Your task to perform on an android device: turn notification dots off Image 0: 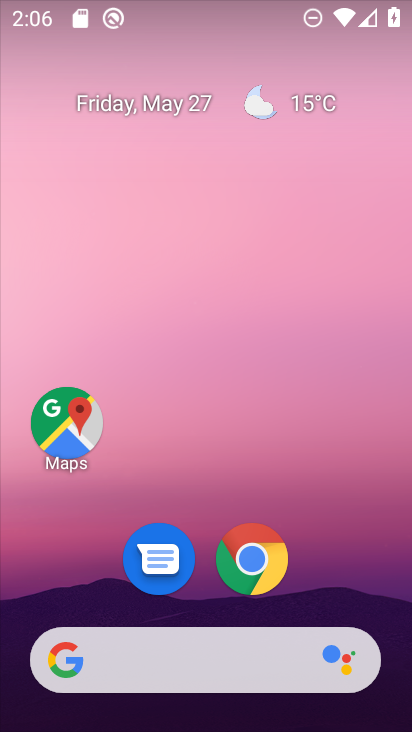
Step 0: click (268, 59)
Your task to perform on an android device: turn notification dots off Image 1: 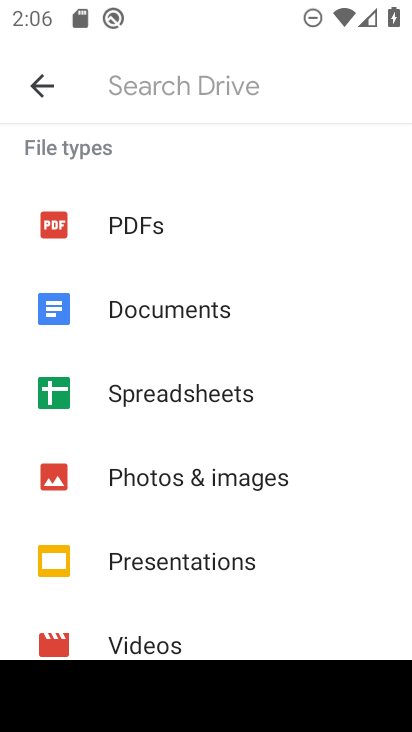
Step 1: press home button
Your task to perform on an android device: turn notification dots off Image 2: 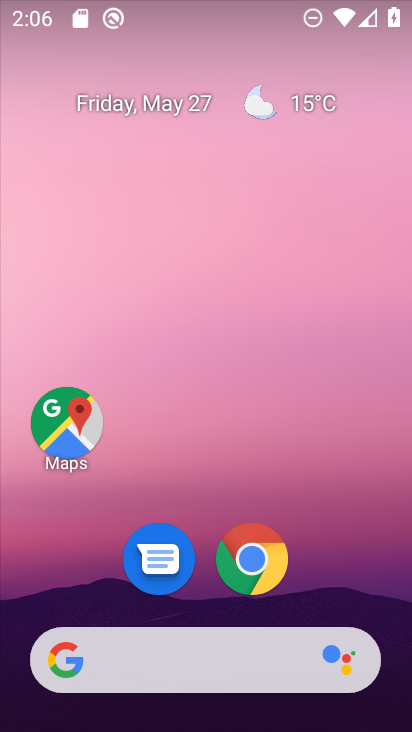
Step 2: drag from (216, 656) to (268, 37)
Your task to perform on an android device: turn notification dots off Image 3: 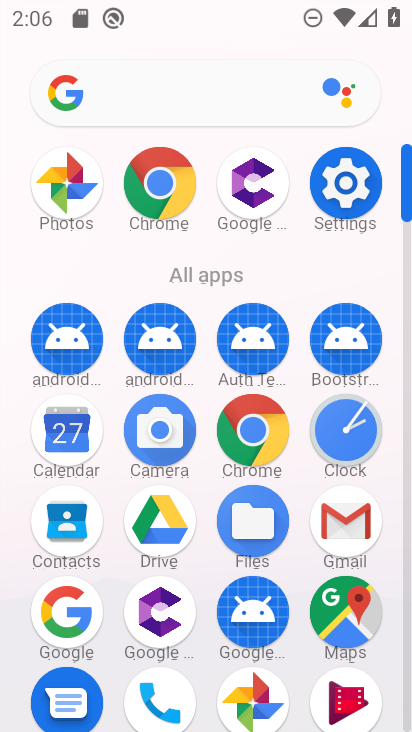
Step 3: click (358, 181)
Your task to perform on an android device: turn notification dots off Image 4: 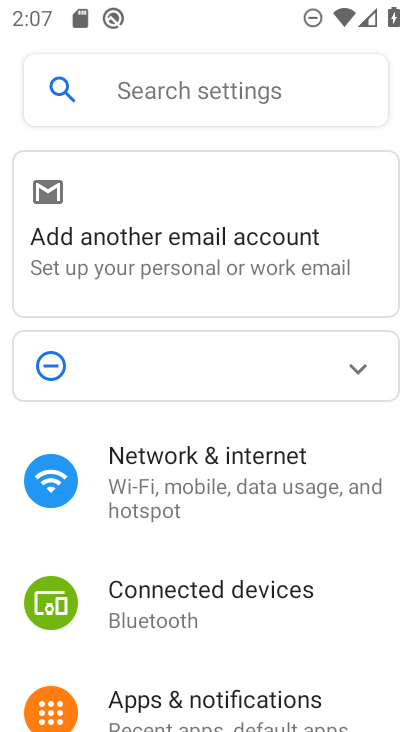
Step 4: click (172, 700)
Your task to perform on an android device: turn notification dots off Image 5: 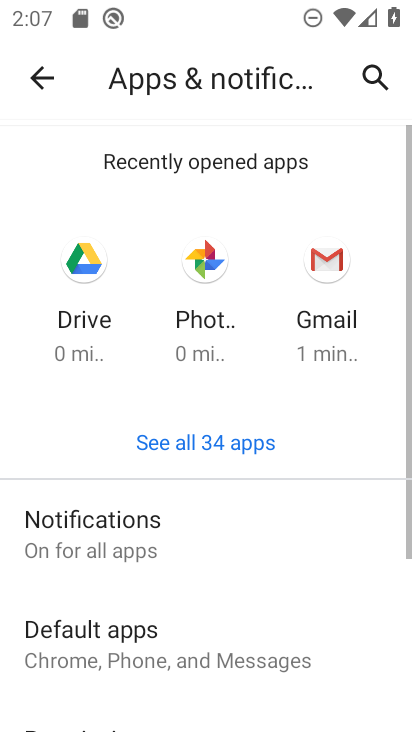
Step 5: drag from (255, 693) to (314, 176)
Your task to perform on an android device: turn notification dots off Image 6: 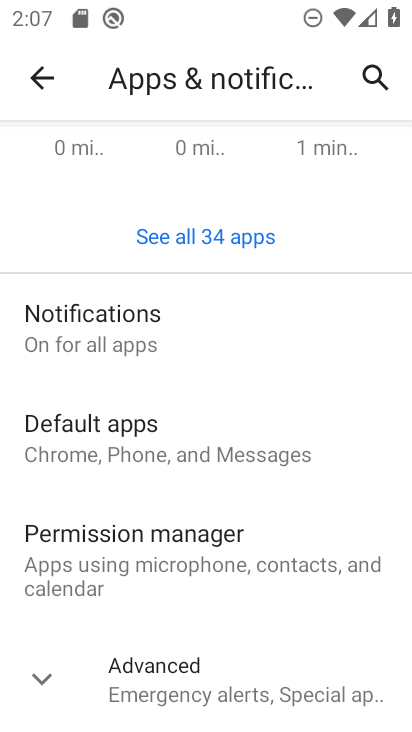
Step 6: click (190, 327)
Your task to perform on an android device: turn notification dots off Image 7: 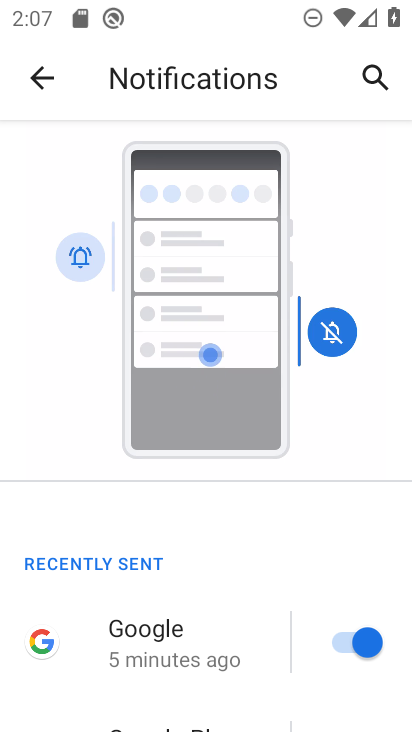
Step 7: drag from (264, 687) to (291, 117)
Your task to perform on an android device: turn notification dots off Image 8: 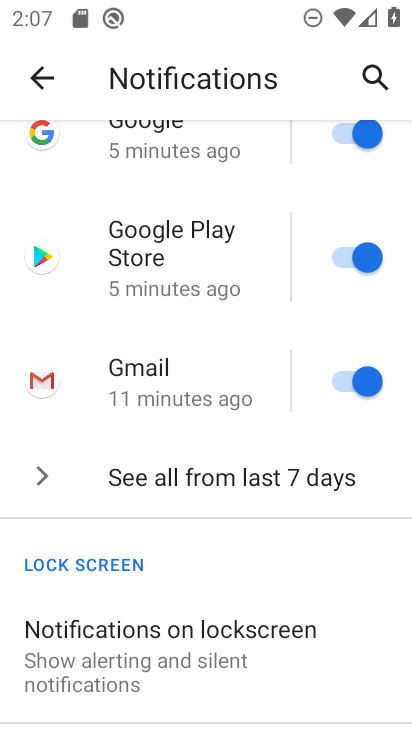
Step 8: drag from (231, 699) to (201, 255)
Your task to perform on an android device: turn notification dots off Image 9: 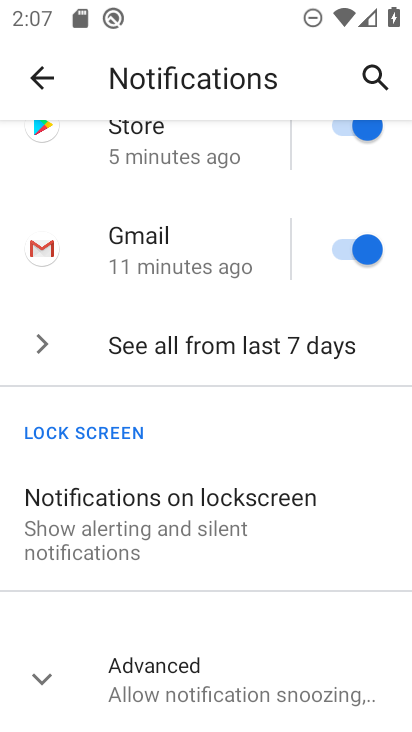
Step 9: click (257, 639)
Your task to perform on an android device: turn notification dots off Image 10: 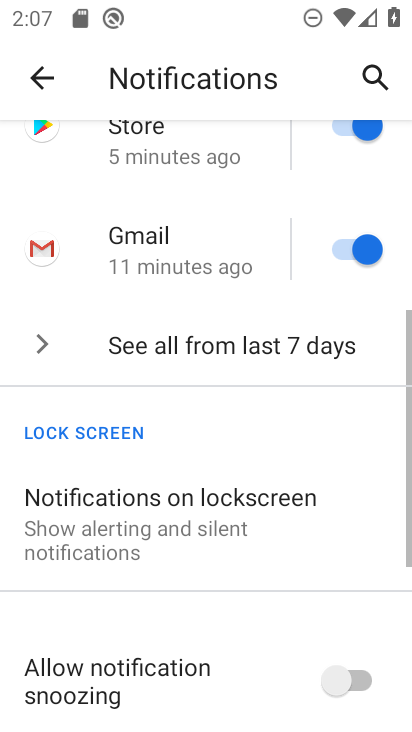
Step 10: drag from (224, 668) to (267, 159)
Your task to perform on an android device: turn notification dots off Image 11: 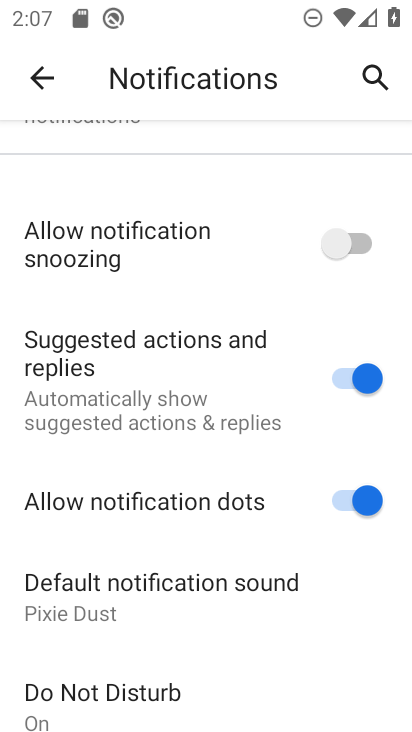
Step 11: click (366, 498)
Your task to perform on an android device: turn notification dots off Image 12: 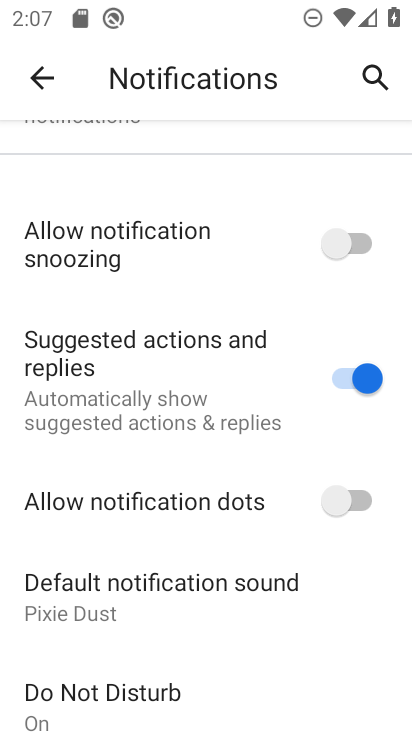
Step 12: task complete